Your task to perform on an android device: Open calendar and show me the second week of next month Image 0: 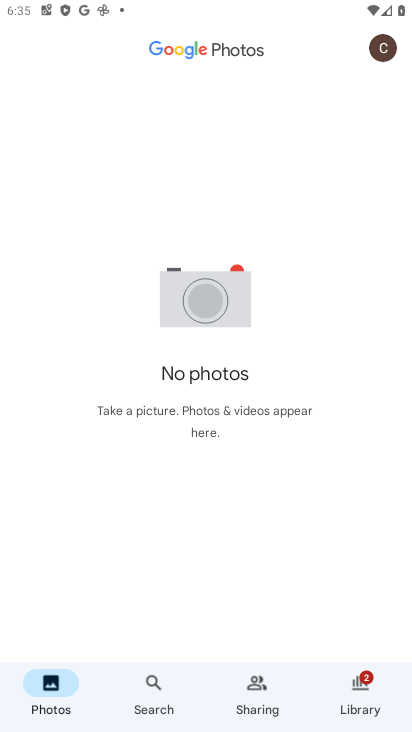
Step 0: press home button
Your task to perform on an android device: Open calendar and show me the second week of next month Image 1: 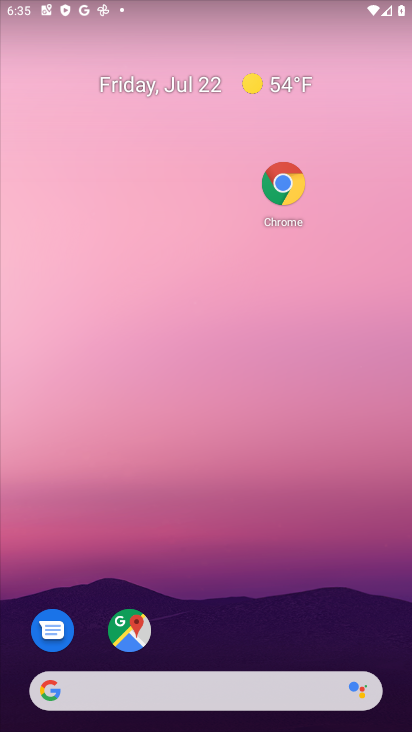
Step 1: drag from (216, 595) to (229, 24)
Your task to perform on an android device: Open calendar and show me the second week of next month Image 2: 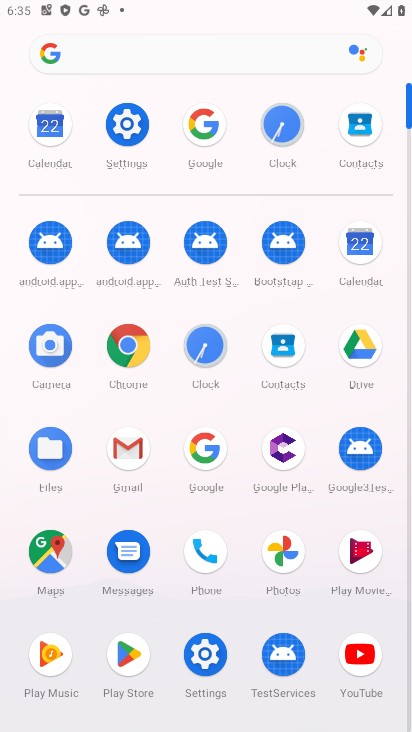
Step 2: click (364, 237)
Your task to perform on an android device: Open calendar and show me the second week of next month Image 3: 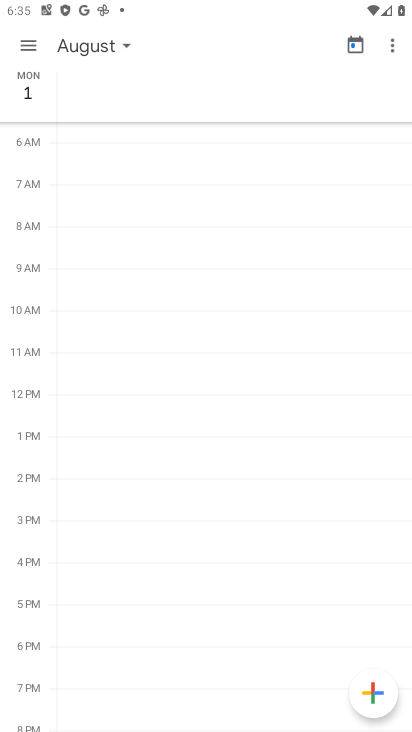
Step 3: click (33, 42)
Your task to perform on an android device: Open calendar and show me the second week of next month Image 4: 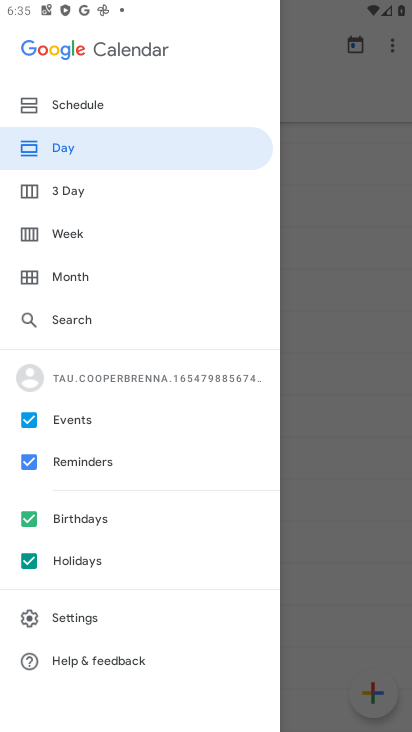
Step 4: click (58, 245)
Your task to perform on an android device: Open calendar and show me the second week of next month Image 5: 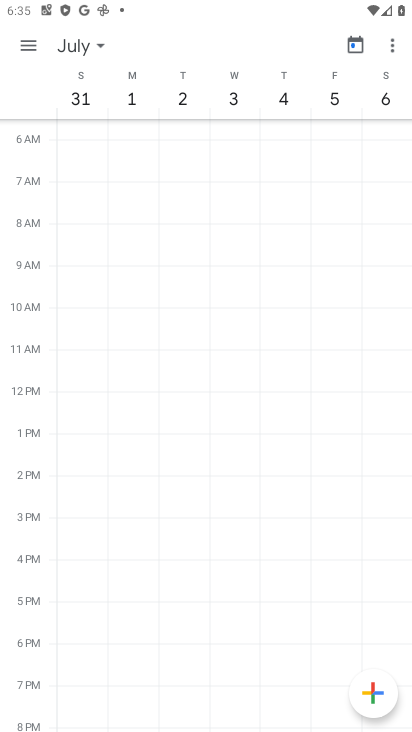
Step 5: click (108, 52)
Your task to perform on an android device: Open calendar and show me the second week of next month Image 6: 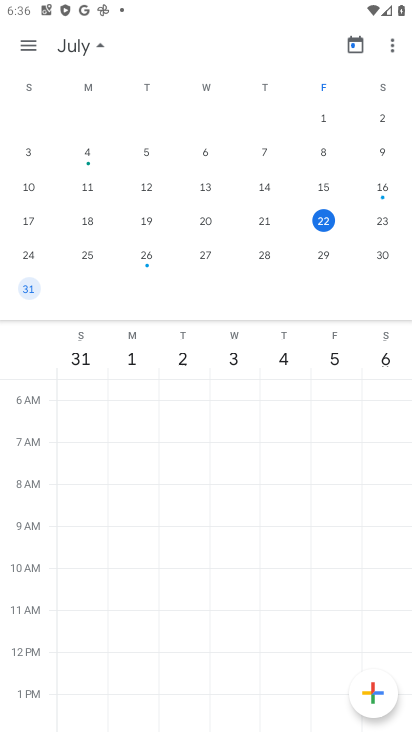
Step 6: drag from (322, 191) to (16, 204)
Your task to perform on an android device: Open calendar and show me the second week of next month Image 7: 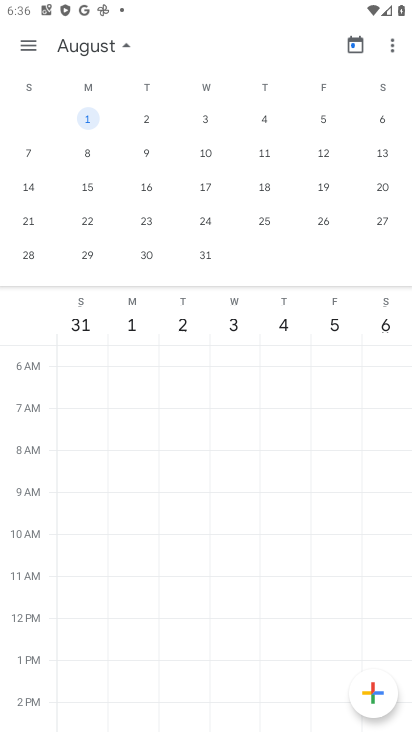
Step 7: click (24, 152)
Your task to perform on an android device: Open calendar and show me the second week of next month Image 8: 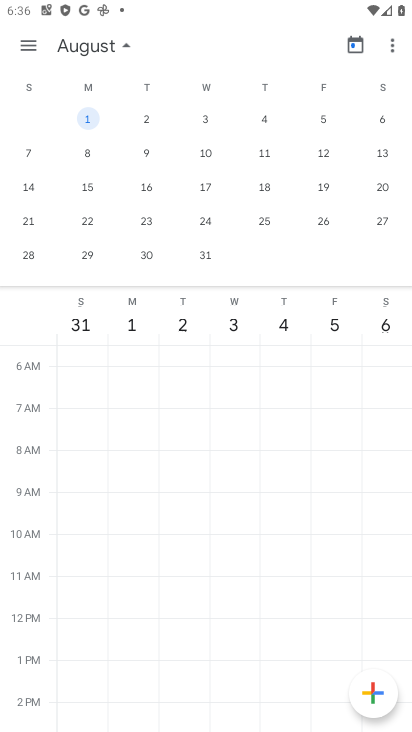
Step 8: click (24, 152)
Your task to perform on an android device: Open calendar and show me the second week of next month Image 9: 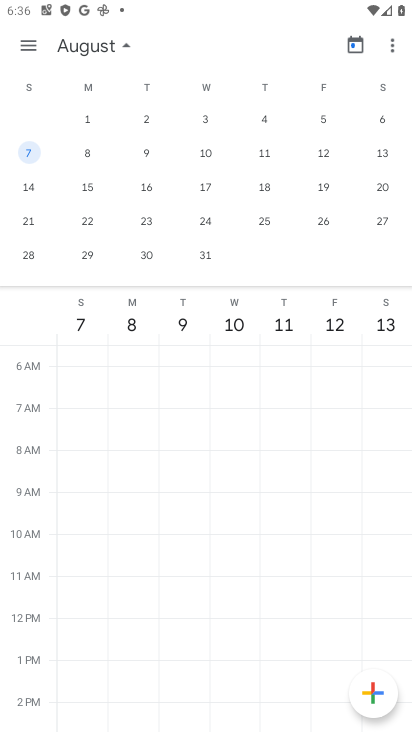
Step 9: task complete